Your task to perform on an android device: Search for Italian restaurants on Maps Image 0: 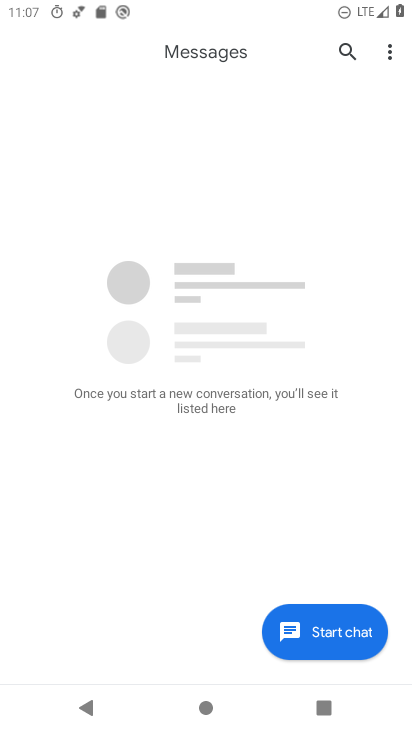
Step 0: drag from (244, 571) to (158, 213)
Your task to perform on an android device: Search for Italian restaurants on Maps Image 1: 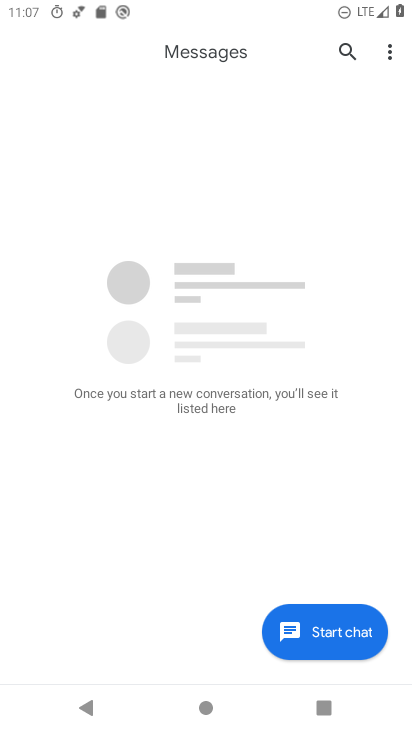
Step 1: press back button
Your task to perform on an android device: Search for Italian restaurants on Maps Image 2: 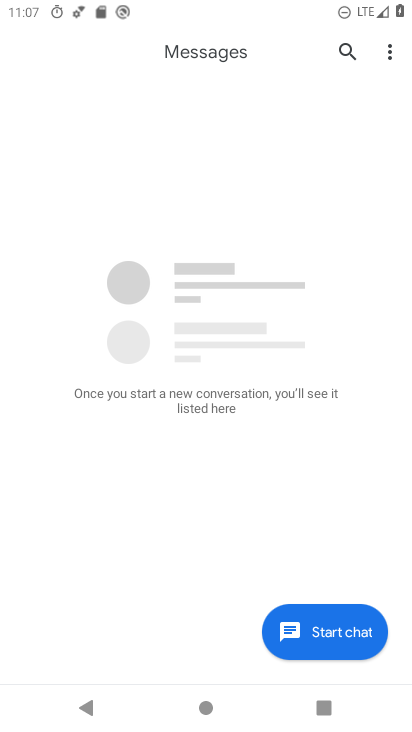
Step 2: press back button
Your task to perform on an android device: Search for Italian restaurants on Maps Image 3: 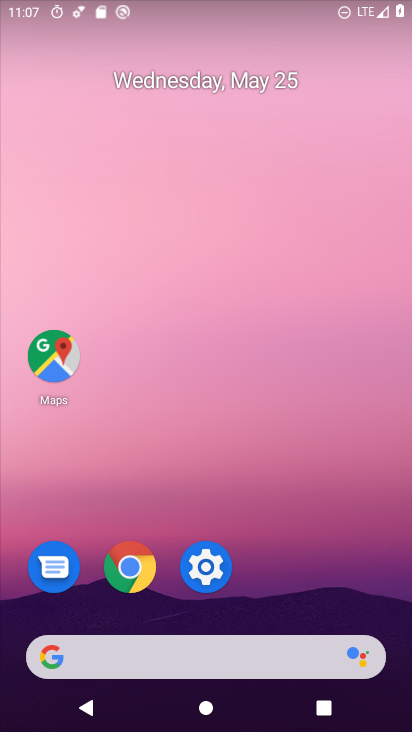
Step 3: drag from (264, 678) to (225, 97)
Your task to perform on an android device: Search for Italian restaurants on Maps Image 4: 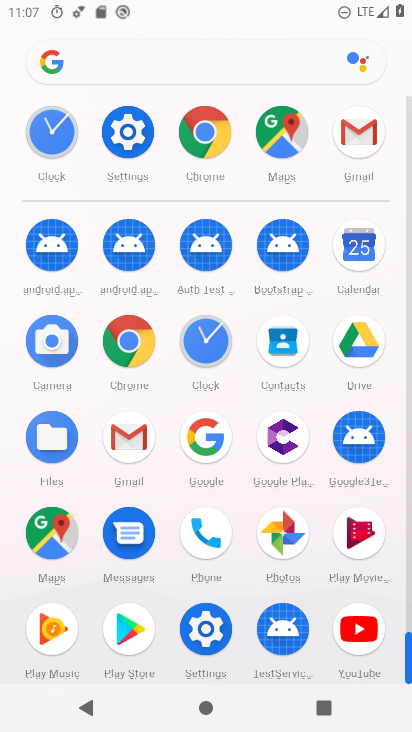
Step 4: click (45, 522)
Your task to perform on an android device: Search for Italian restaurants on Maps Image 5: 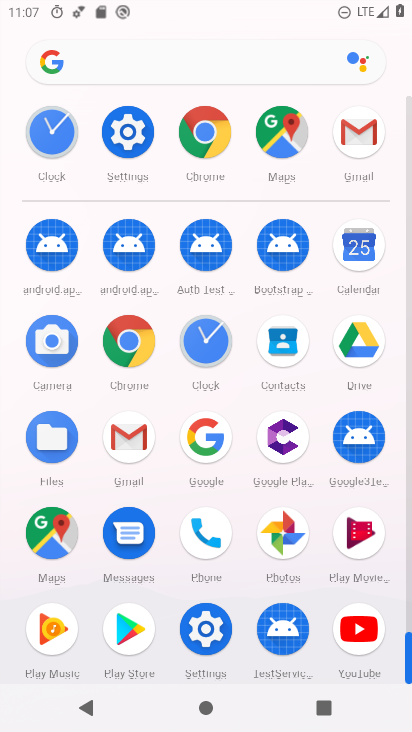
Step 5: click (45, 522)
Your task to perform on an android device: Search for Italian restaurants on Maps Image 6: 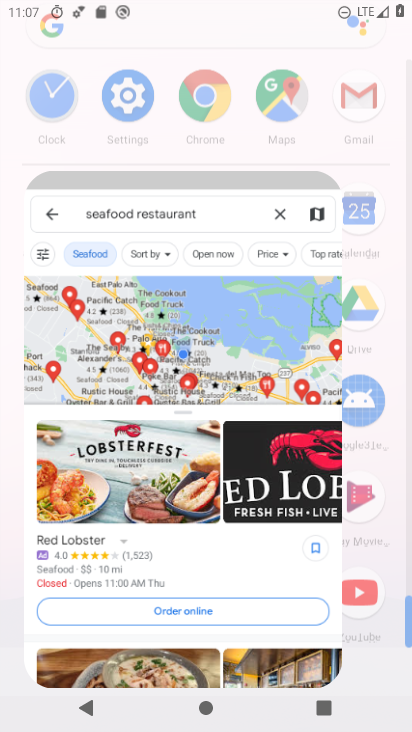
Step 6: click (47, 521)
Your task to perform on an android device: Search for Italian restaurants on Maps Image 7: 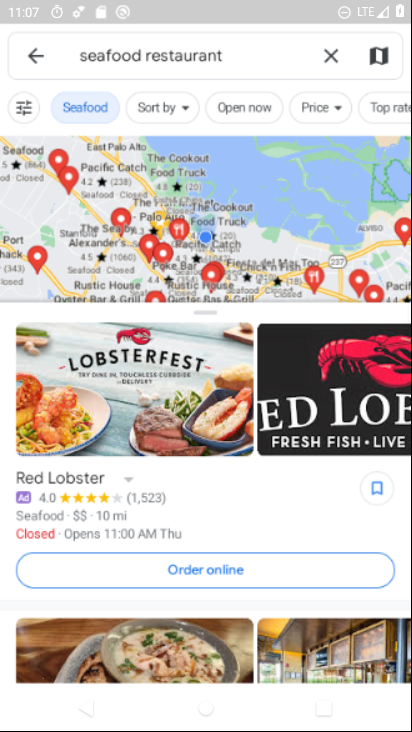
Step 7: click (47, 520)
Your task to perform on an android device: Search for Italian restaurants on Maps Image 8: 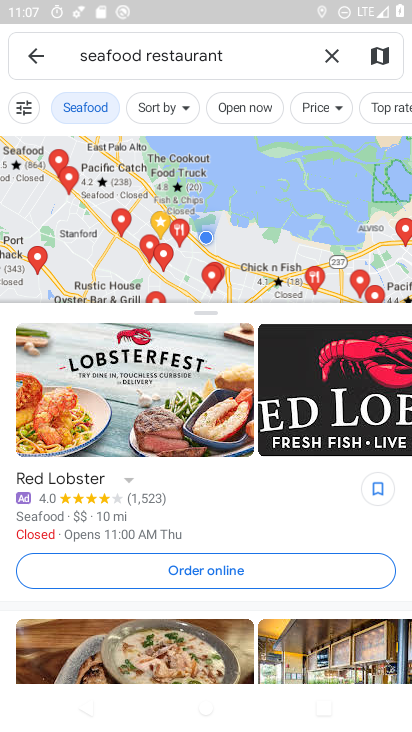
Step 8: click (337, 54)
Your task to perform on an android device: Search for Italian restaurants on Maps Image 9: 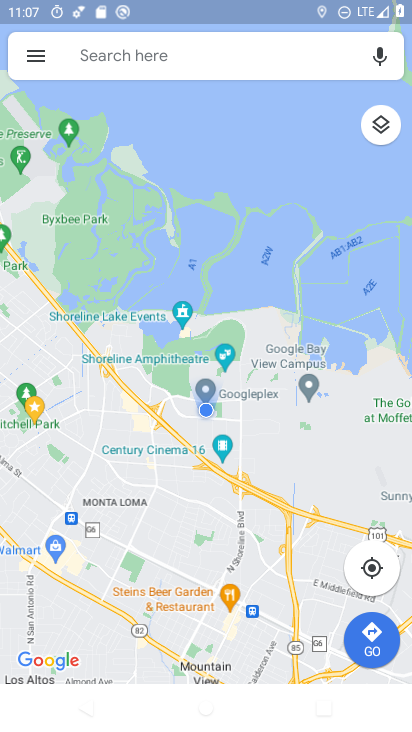
Step 9: click (77, 44)
Your task to perform on an android device: Search for Italian restaurants on Maps Image 10: 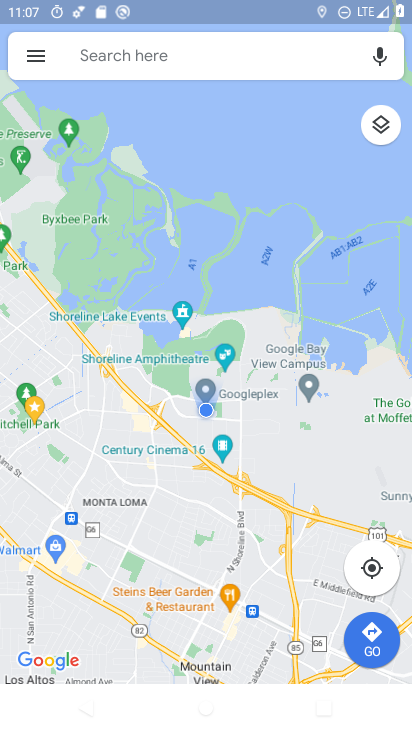
Step 10: click (83, 49)
Your task to perform on an android device: Search for Italian restaurants on Maps Image 11: 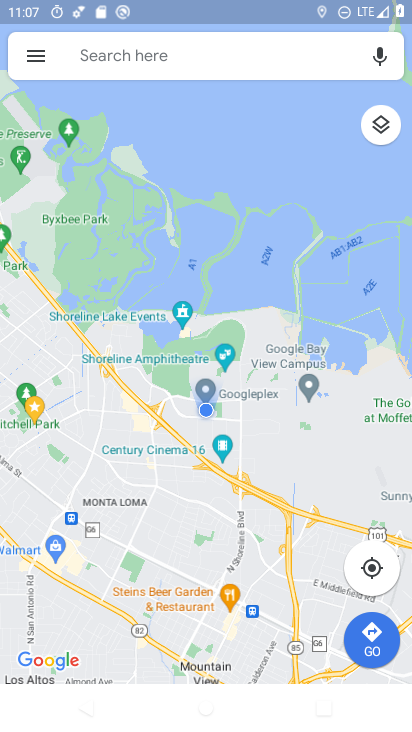
Step 11: click (83, 49)
Your task to perform on an android device: Search for Italian restaurants on Maps Image 12: 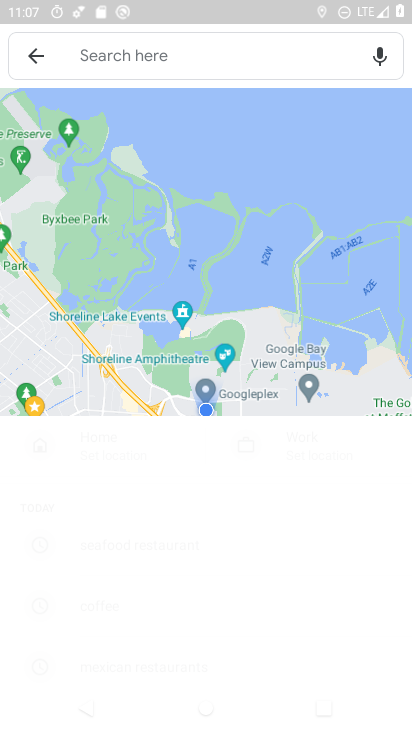
Step 12: click (83, 49)
Your task to perform on an android device: Search for Italian restaurants on Maps Image 13: 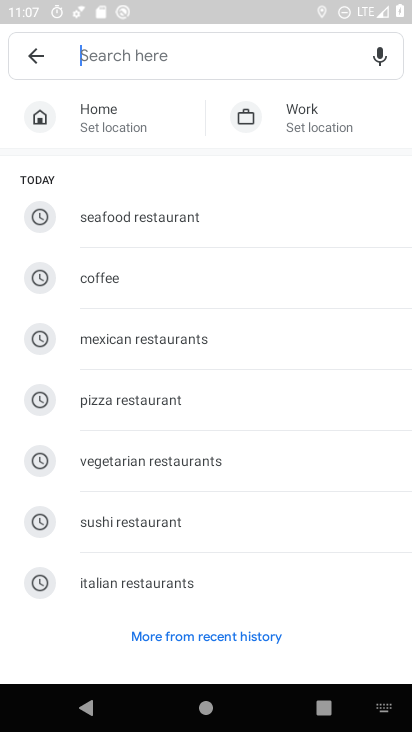
Step 13: click (83, 49)
Your task to perform on an android device: Search for Italian restaurants on Maps Image 14: 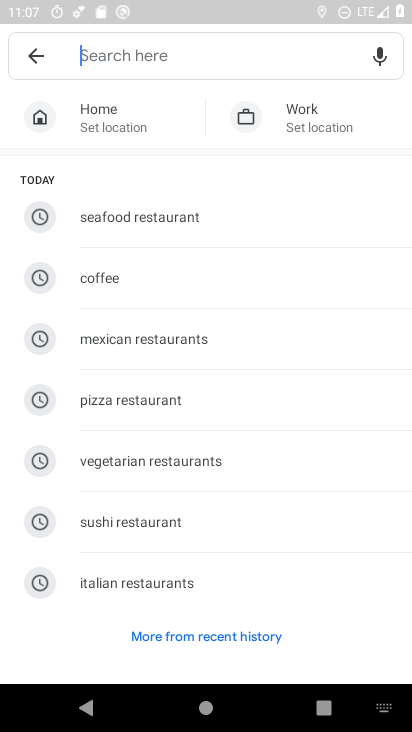
Step 14: click (120, 579)
Your task to perform on an android device: Search for Italian restaurants on Maps Image 15: 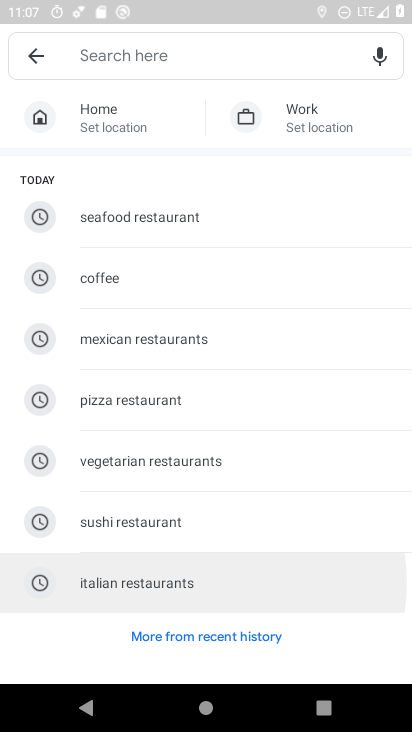
Step 15: click (120, 579)
Your task to perform on an android device: Search for Italian restaurants on Maps Image 16: 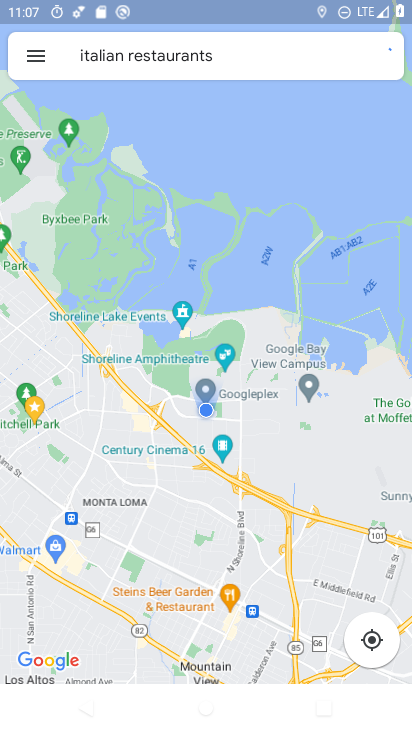
Step 16: task complete